Your task to perform on an android device: Open the calendar and show me this week's events Image 0: 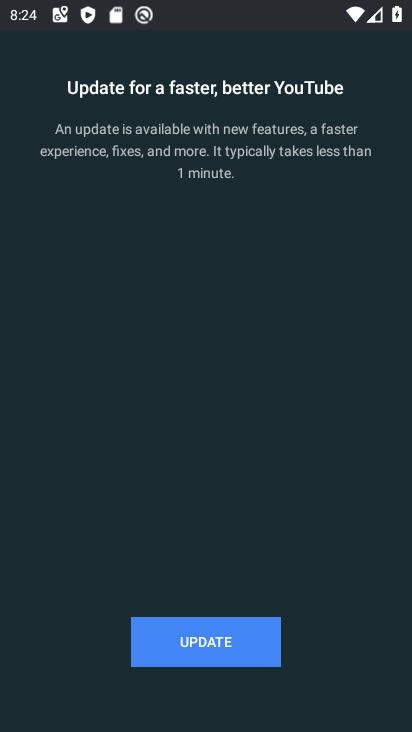
Step 0: press back button
Your task to perform on an android device: Open the calendar and show me this week's events Image 1: 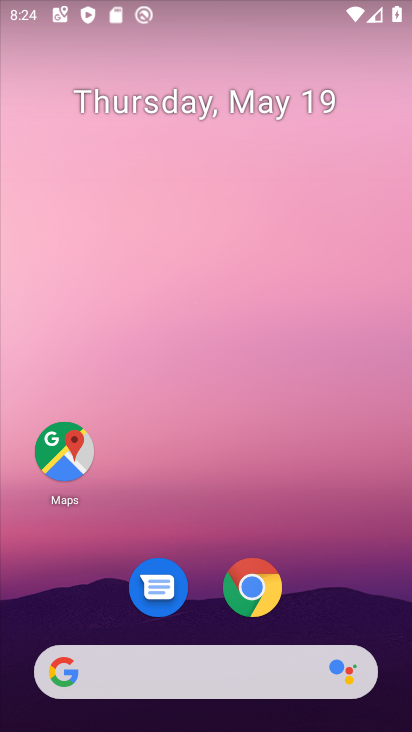
Step 1: drag from (351, 591) to (271, 21)
Your task to perform on an android device: Open the calendar and show me this week's events Image 2: 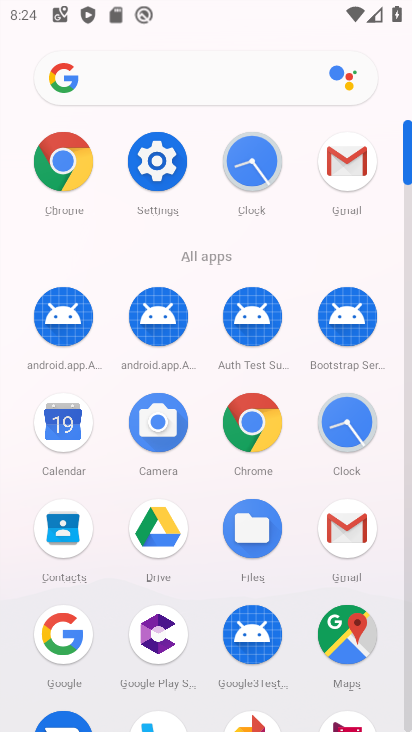
Step 2: drag from (11, 538) to (21, 266)
Your task to perform on an android device: Open the calendar and show me this week's events Image 3: 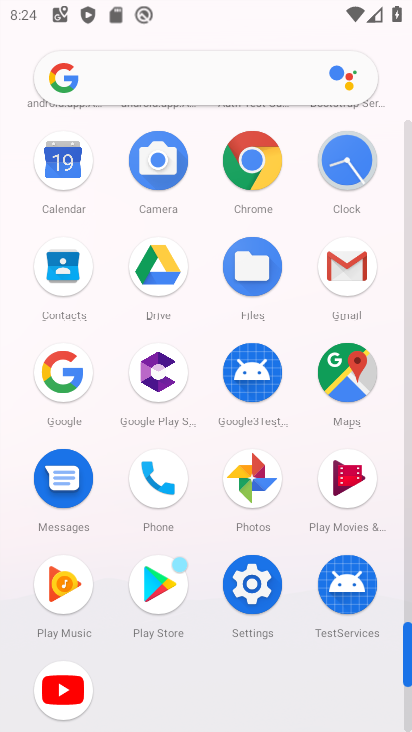
Step 3: click (64, 155)
Your task to perform on an android device: Open the calendar and show me this week's events Image 4: 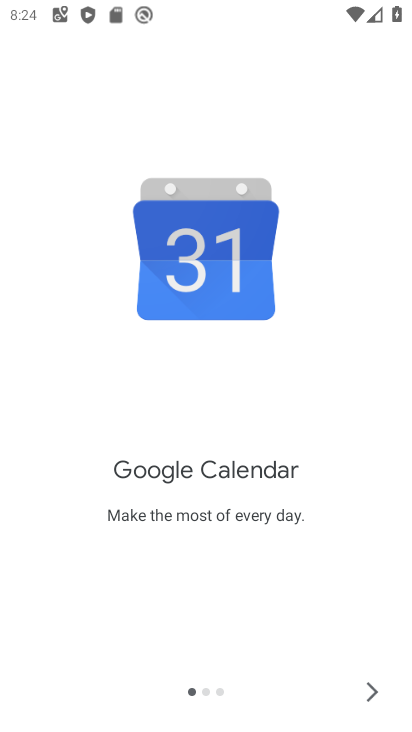
Step 4: click (368, 685)
Your task to perform on an android device: Open the calendar and show me this week's events Image 5: 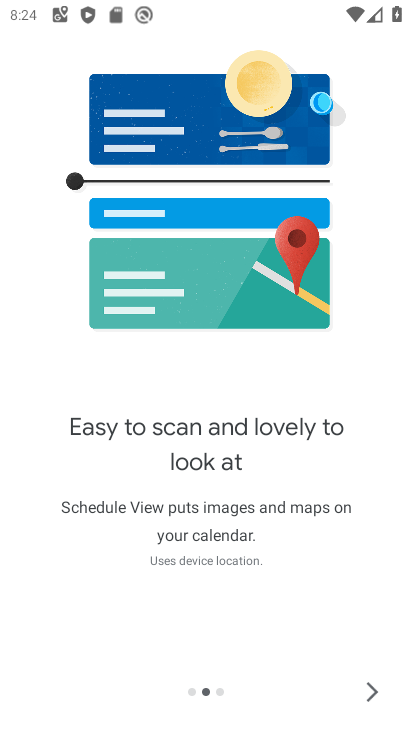
Step 5: click (369, 684)
Your task to perform on an android device: Open the calendar and show me this week's events Image 6: 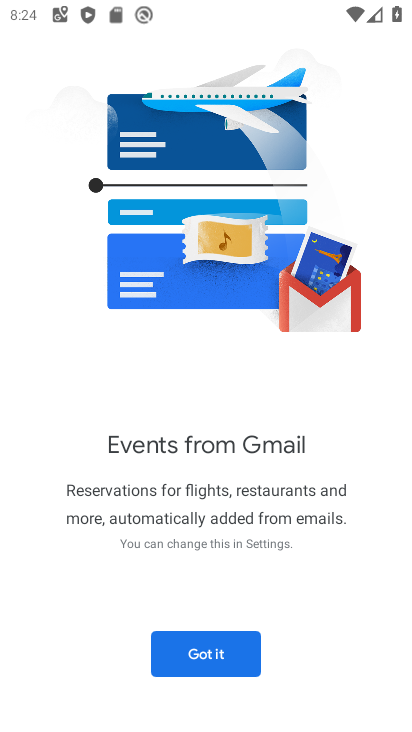
Step 6: click (244, 657)
Your task to perform on an android device: Open the calendar and show me this week's events Image 7: 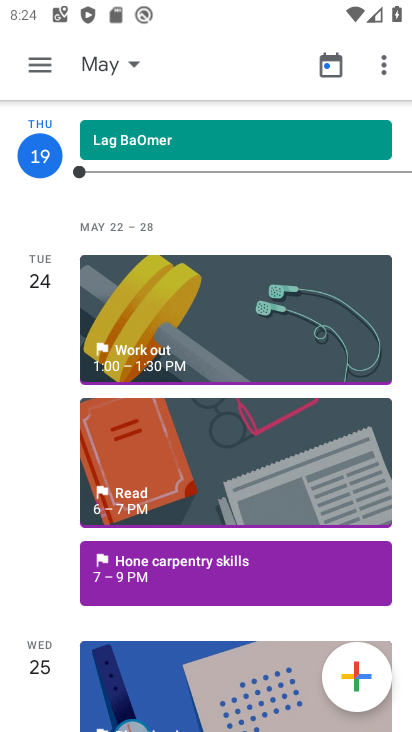
Step 7: click (107, 65)
Your task to perform on an android device: Open the calendar and show me this week's events Image 8: 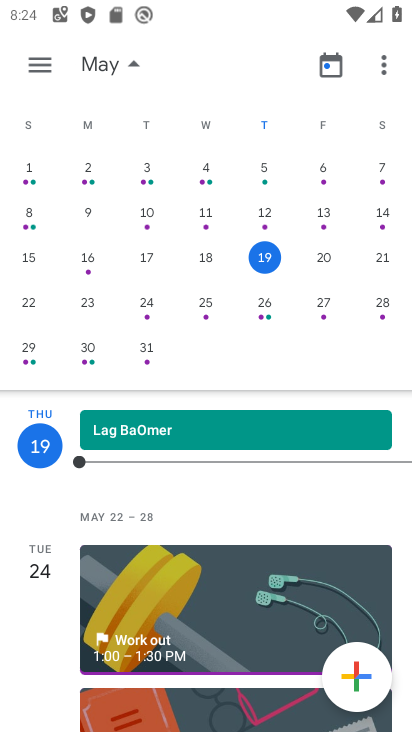
Step 8: click (40, 70)
Your task to perform on an android device: Open the calendar and show me this week's events Image 9: 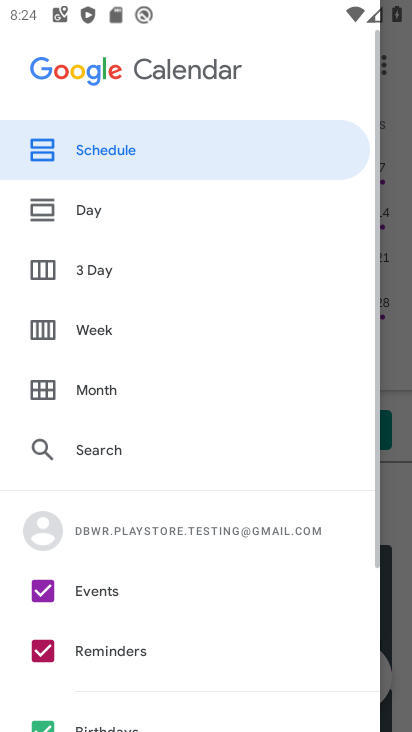
Step 9: click (116, 330)
Your task to perform on an android device: Open the calendar and show me this week's events Image 10: 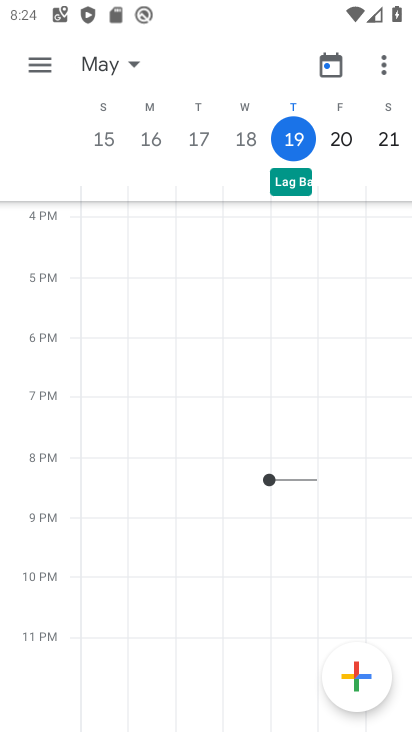
Step 10: task complete